Your task to perform on an android device: open a bookmark in the chrome app Image 0: 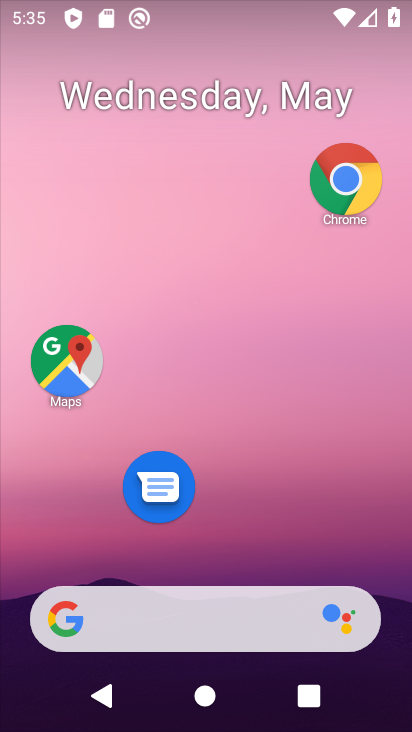
Step 0: drag from (210, 543) to (272, 8)
Your task to perform on an android device: open a bookmark in the chrome app Image 1: 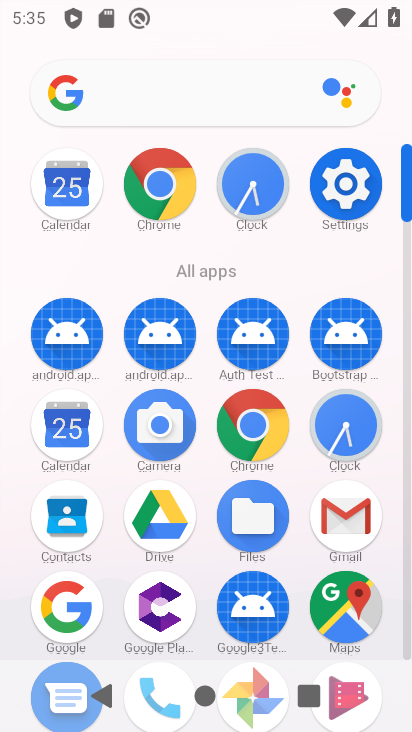
Step 1: click (158, 199)
Your task to perform on an android device: open a bookmark in the chrome app Image 2: 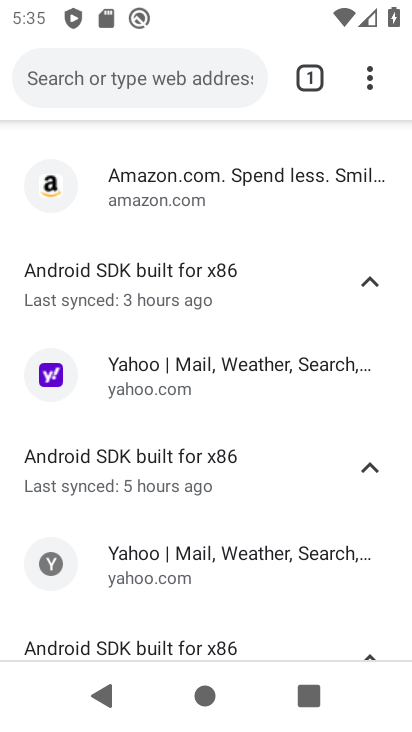
Step 2: click (369, 87)
Your task to perform on an android device: open a bookmark in the chrome app Image 3: 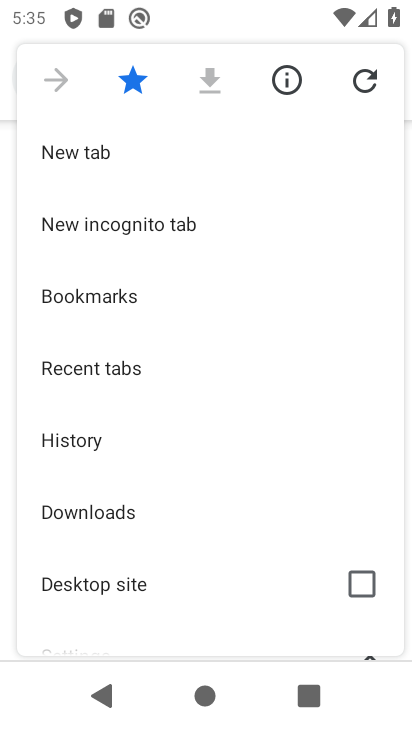
Step 3: click (148, 302)
Your task to perform on an android device: open a bookmark in the chrome app Image 4: 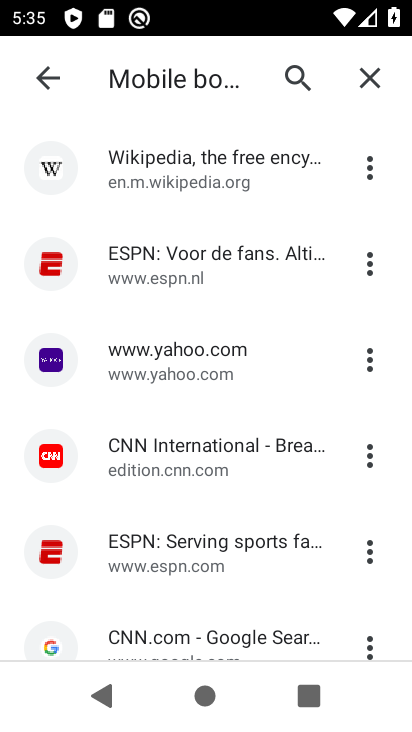
Step 4: click (161, 188)
Your task to perform on an android device: open a bookmark in the chrome app Image 5: 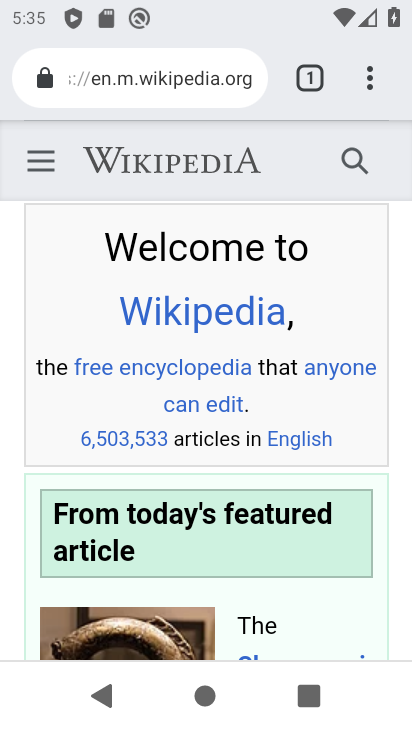
Step 5: task complete